Your task to perform on an android device: see sites visited before in the chrome app Image 0: 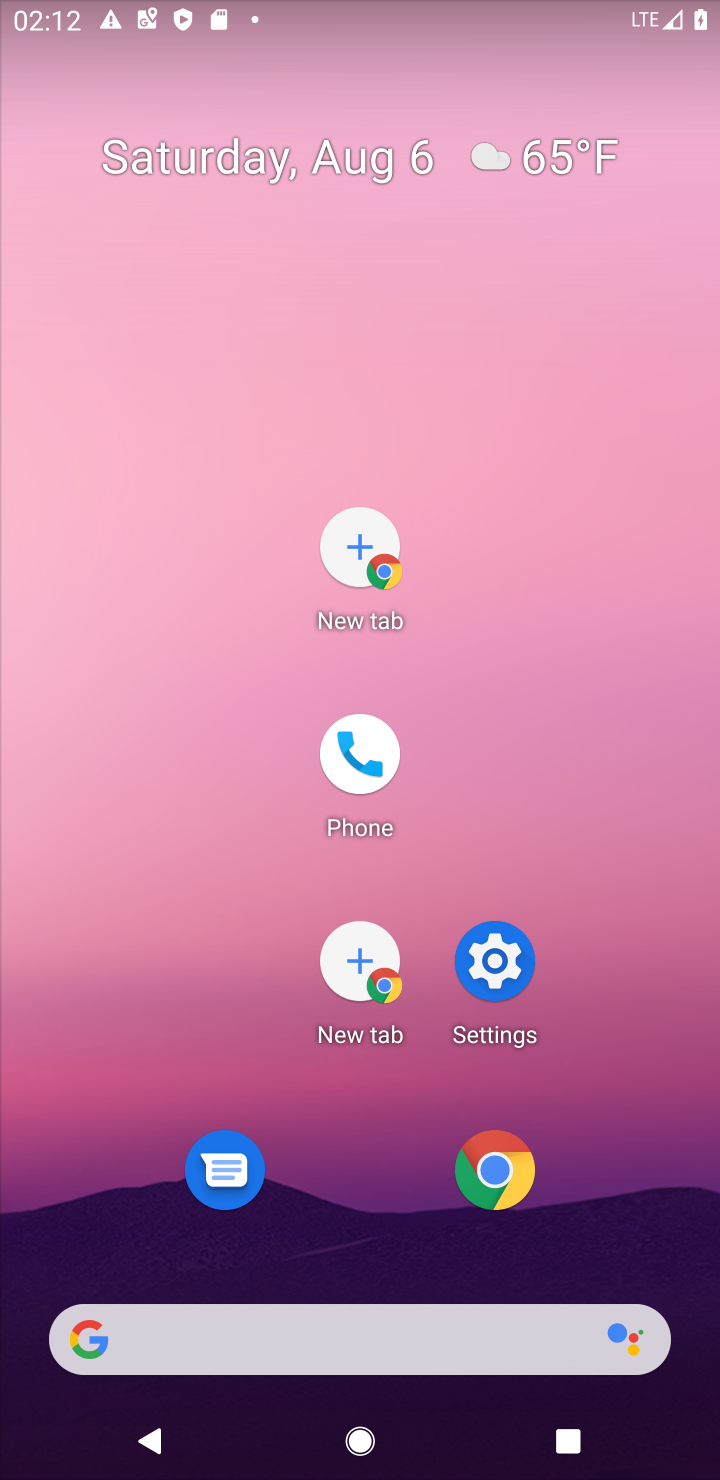
Step 0: click (524, 1183)
Your task to perform on an android device: see sites visited before in the chrome app Image 1: 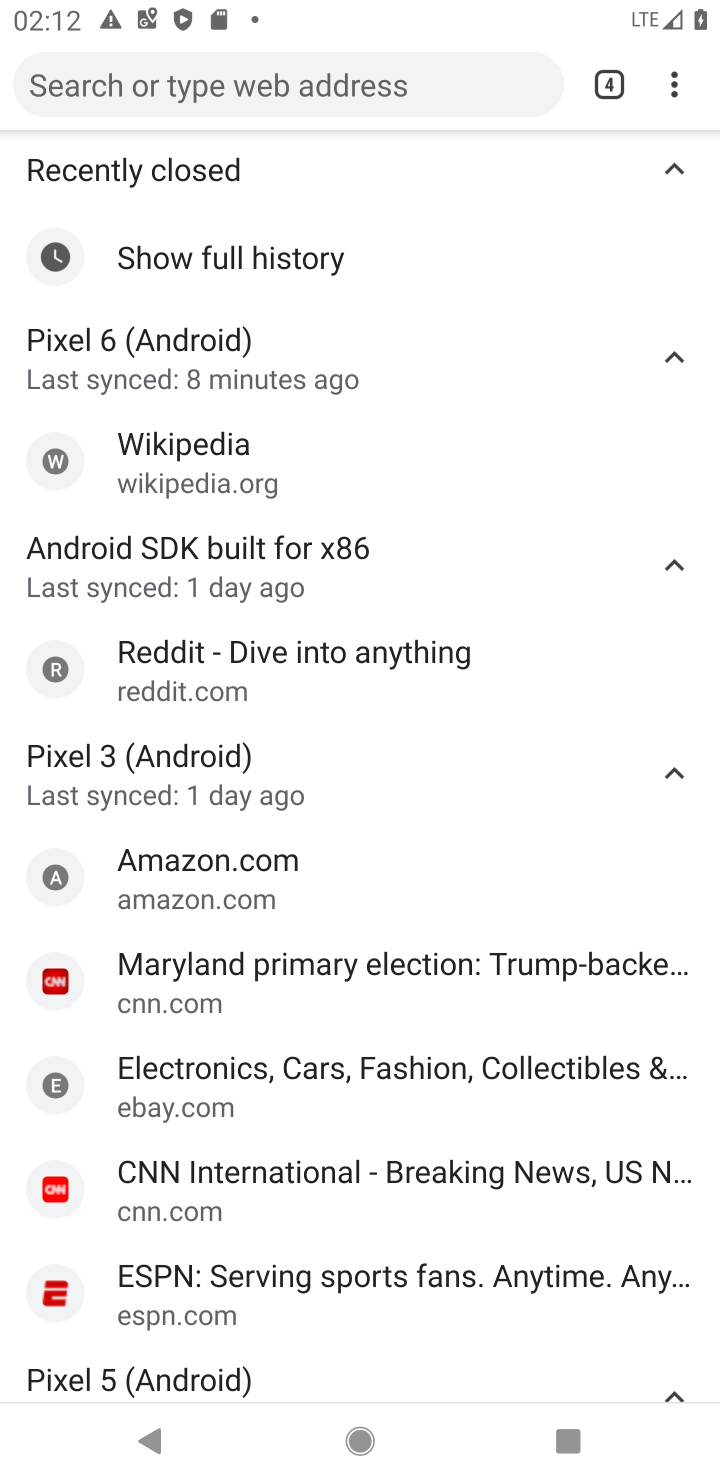
Step 1: click (671, 79)
Your task to perform on an android device: see sites visited before in the chrome app Image 2: 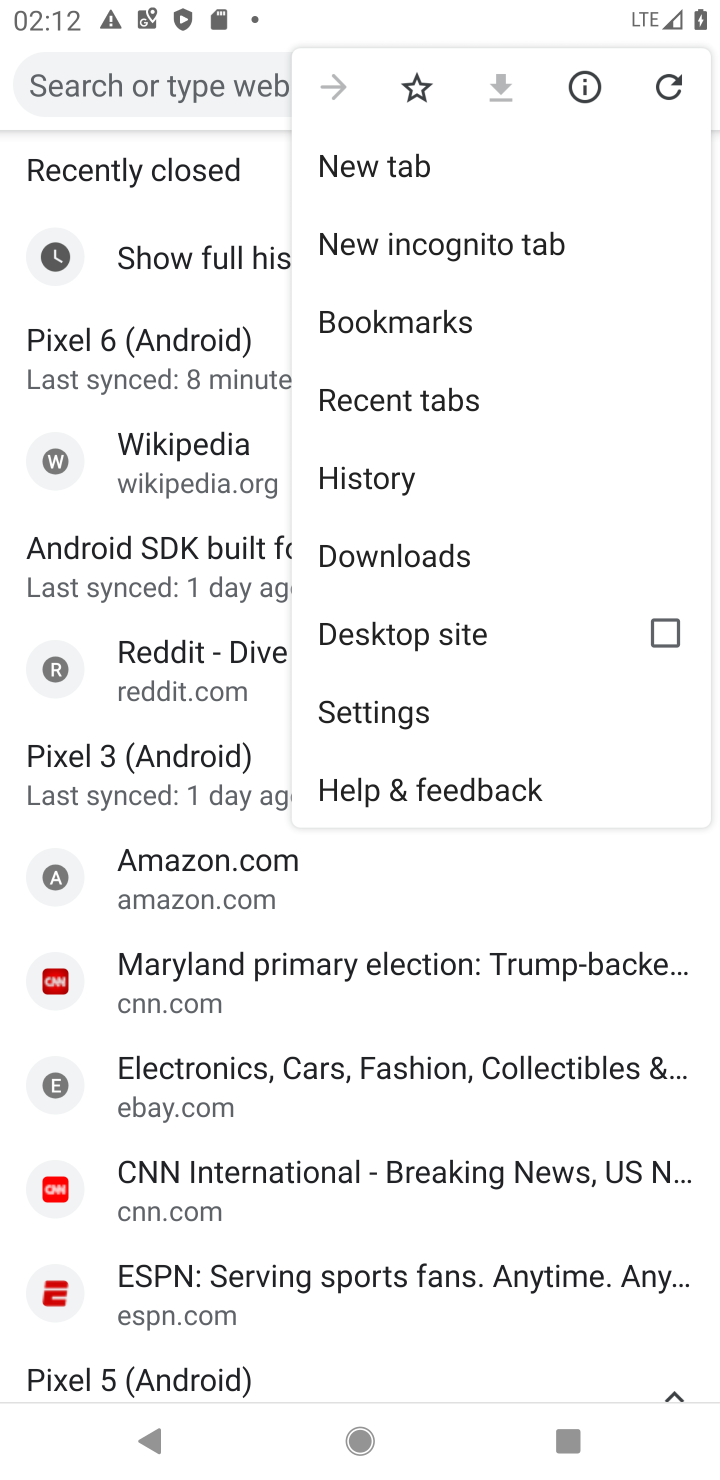
Step 2: click (428, 382)
Your task to perform on an android device: see sites visited before in the chrome app Image 3: 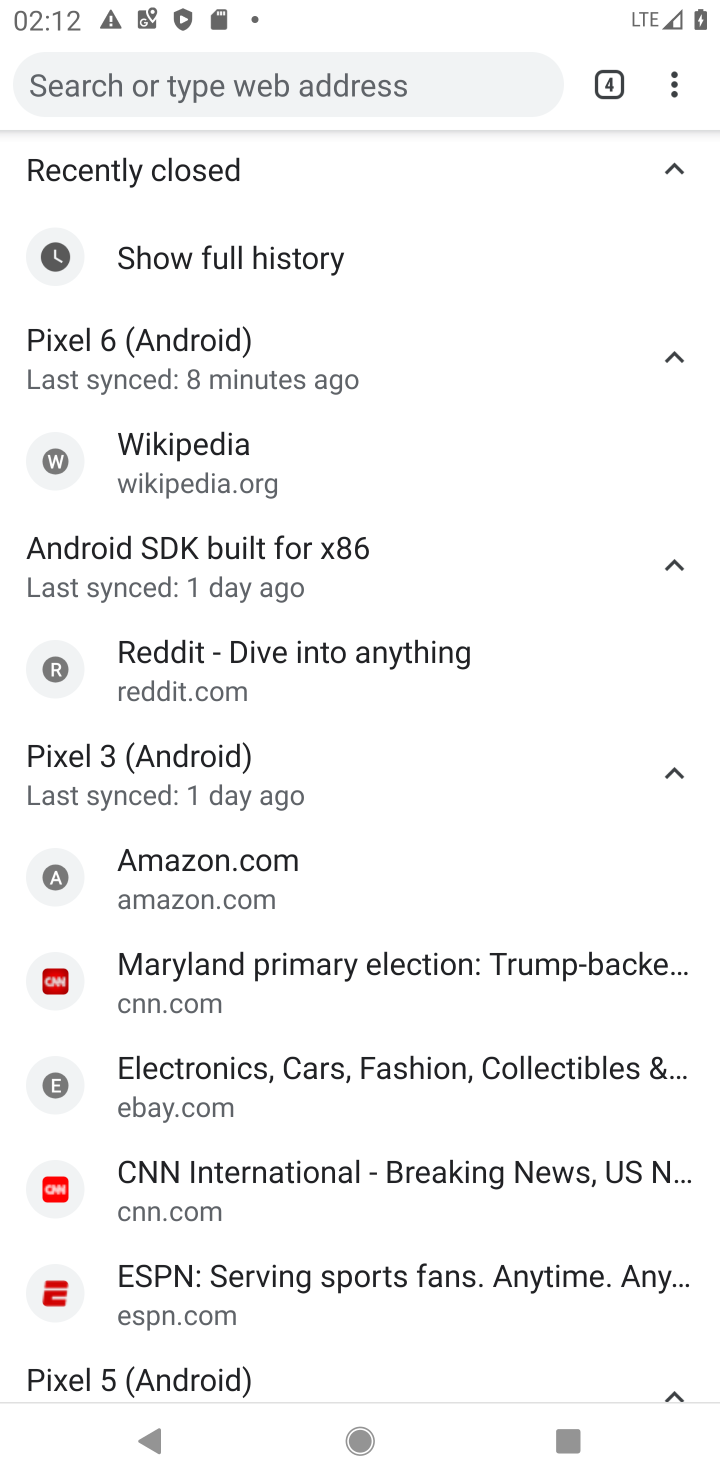
Step 3: task complete